Your task to perform on an android device: install app "Facebook Messenger" Image 0: 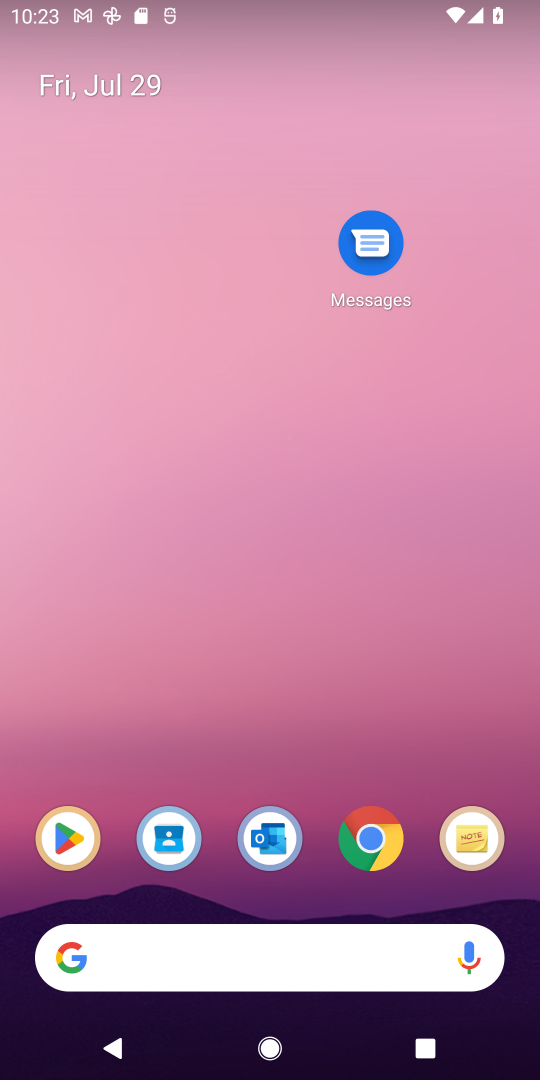
Step 0: click (75, 843)
Your task to perform on an android device: install app "Facebook Messenger" Image 1: 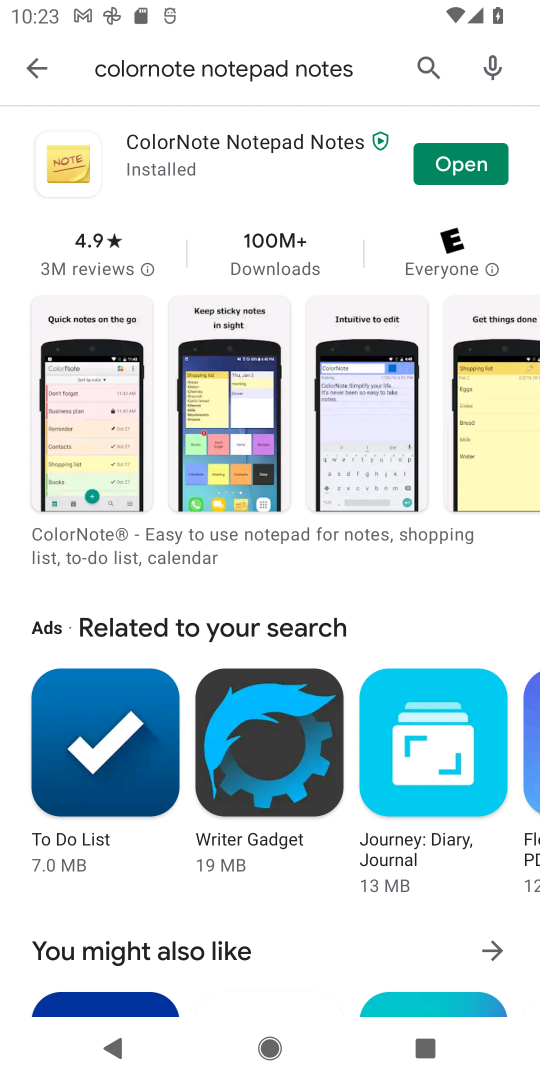
Step 1: click (285, 74)
Your task to perform on an android device: install app "Facebook Messenger" Image 2: 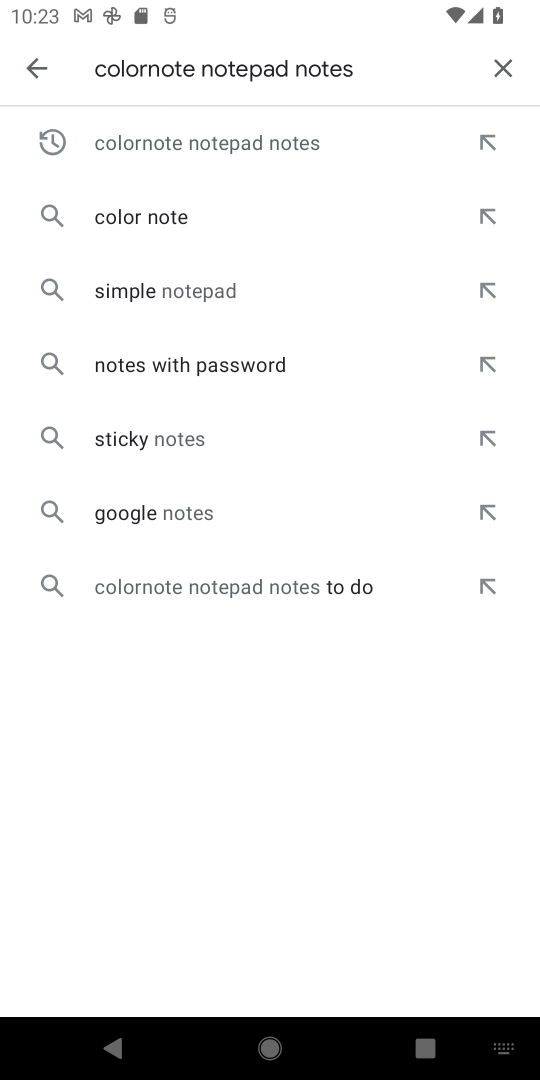
Step 2: click (503, 68)
Your task to perform on an android device: install app "Facebook Messenger" Image 3: 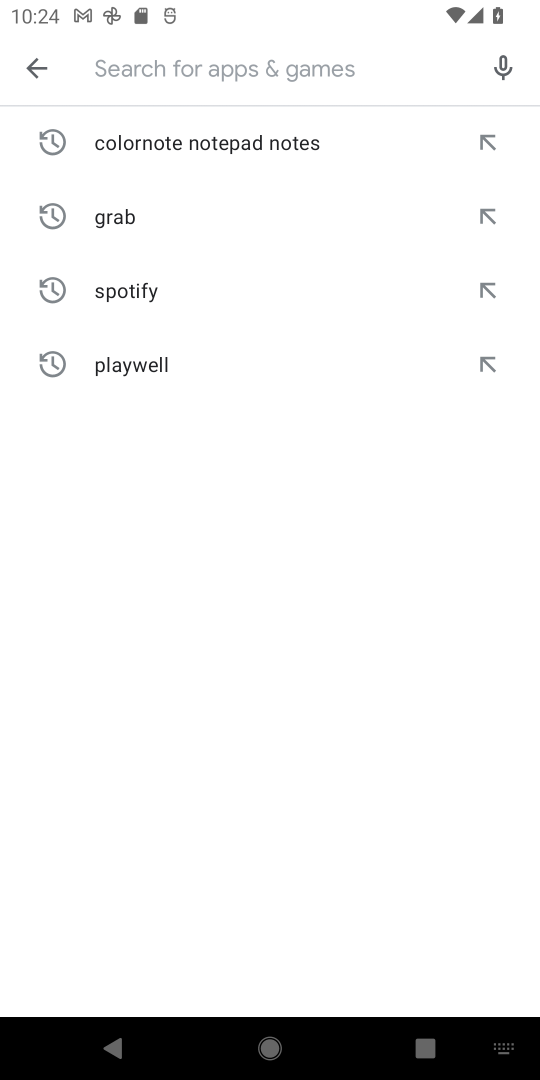
Step 3: type "facebook messenger"
Your task to perform on an android device: install app "Facebook Messenger" Image 4: 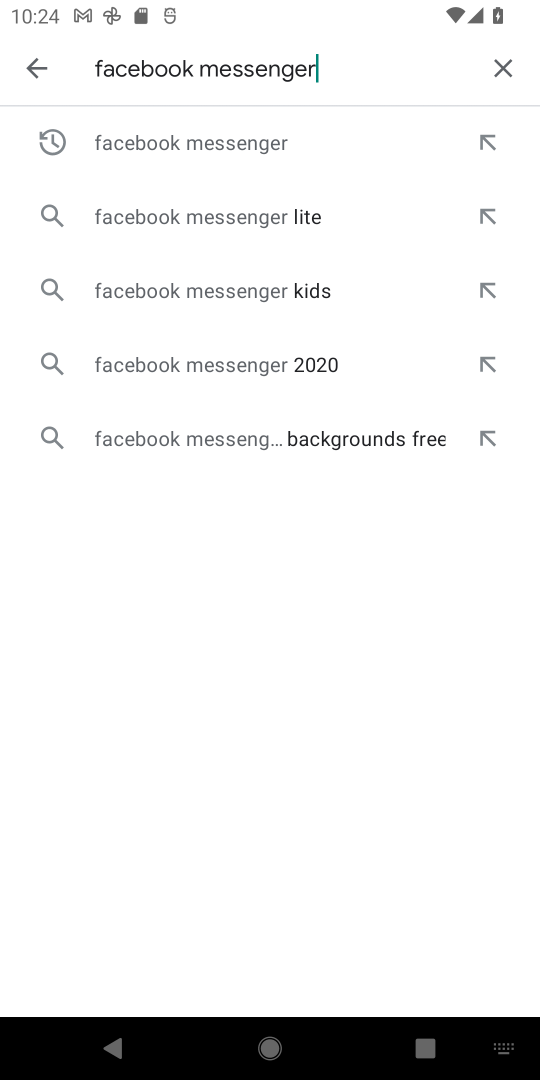
Step 4: click (160, 142)
Your task to perform on an android device: install app "Facebook Messenger" Image 5: 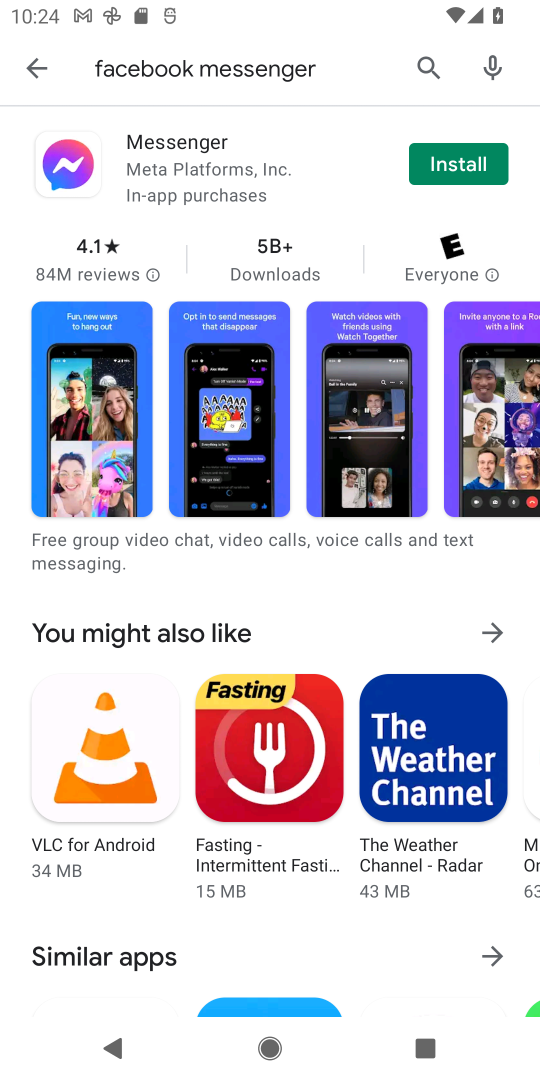
Step 5: click (457, 153)
Your task to perform on an android device: install app "Facebook Messenger" Image 6: 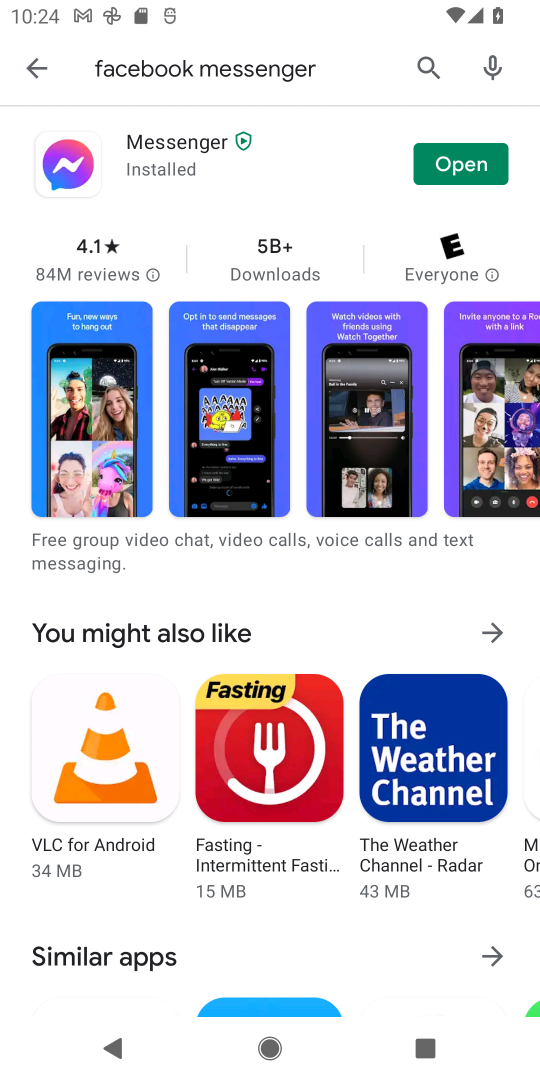
Step 6: task complete